Your task to perform on an android device: Do I have any events today? Image 0: 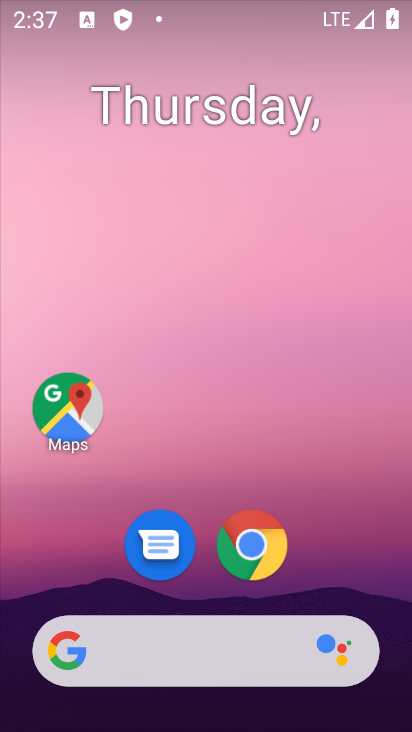
Step 0: drag from (224, 489) to (262, 3)
Your task to perform on an android device: Do I have any events today? Image 1: 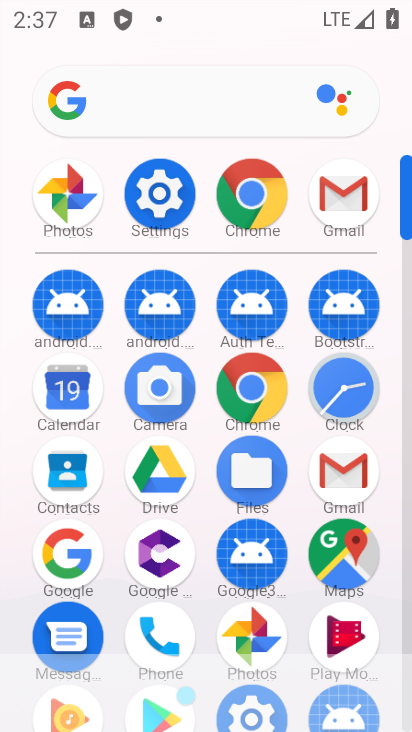
Step 1: click (90, 389)
Your task to perform on an android device: Do I have any events today? Image 2: 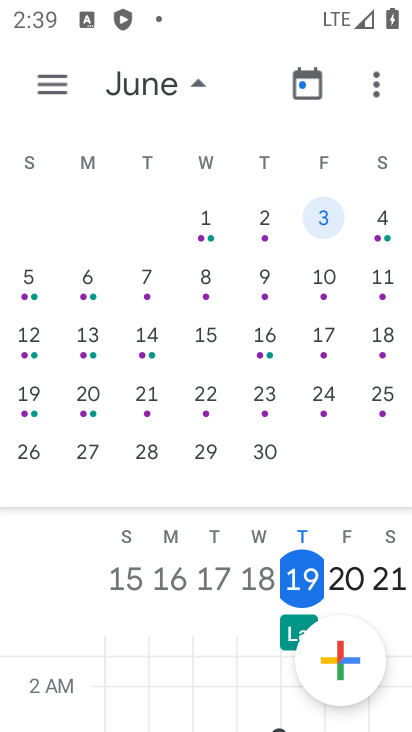
Step 2: drag from (88, 254) to (410, 302)
Your task to perform on an android device: Do I have any events today? Image 3: 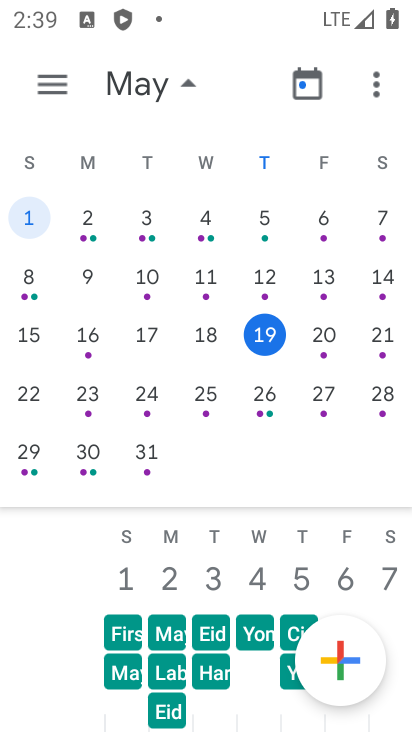
Step 3: click (261, 335)
Your task to perform on an android device: Do I have any events today? Image 4: 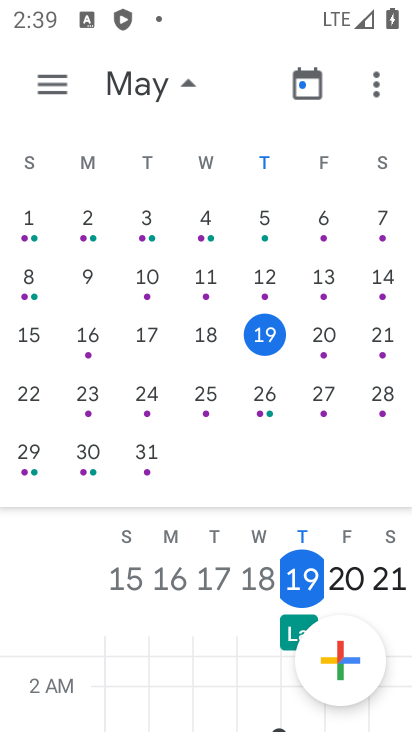
Step 4: task complete